Your task to perform on an android device: When is my next meeting? Image 0: 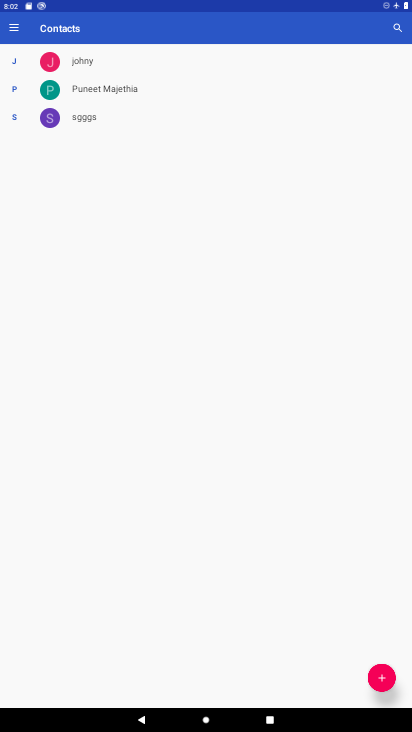
Step 0: press home button
Your task to perform on an android device: When is my next meeting? Image 1: 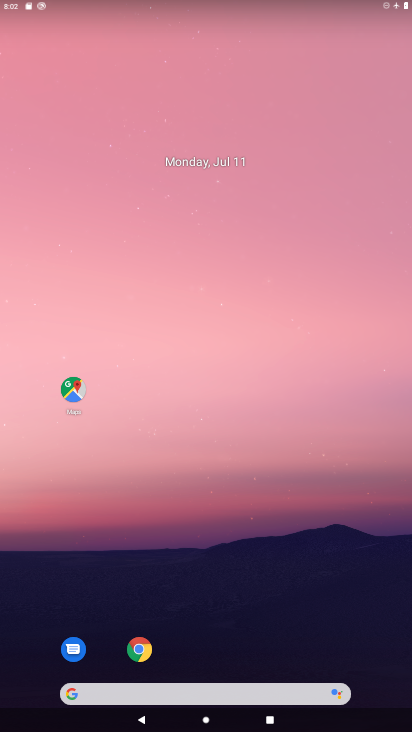
Step 1: drag from (193, 696) to (155, 148)
Your task to perform on an android device: When is my next meeting? Image 2: 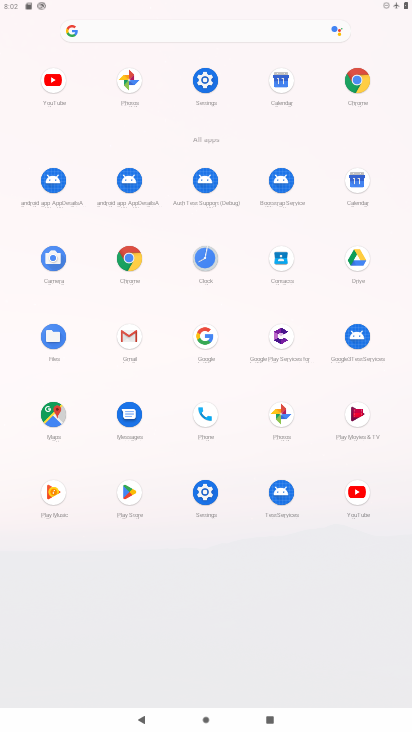
Step 2: click (357, 181)
Your task to perform on an android device: When is my next meeting? Image 3: 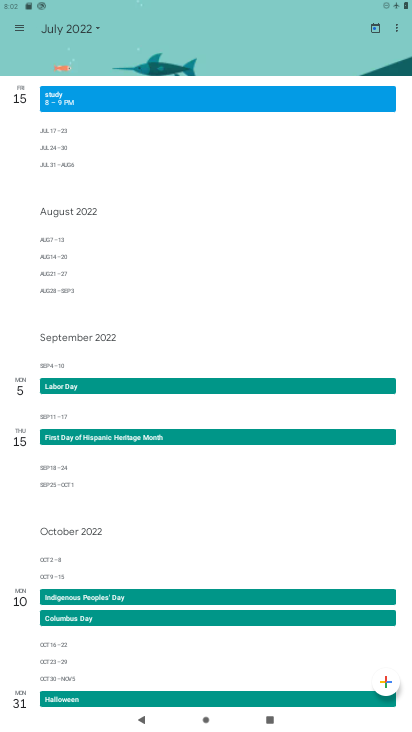
Step 3: click (378, 28)
Your task to perform on an android device: When is my next meeting? Image 4: 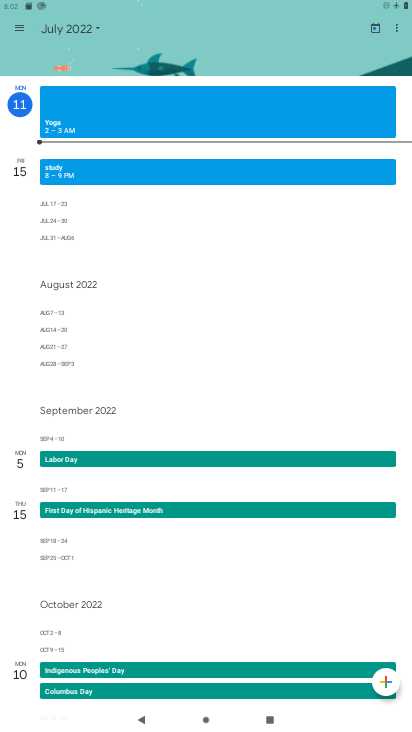
Step 4: click (89, 25)
Your task to perform on an android device: When is my next meeting? Image 5: 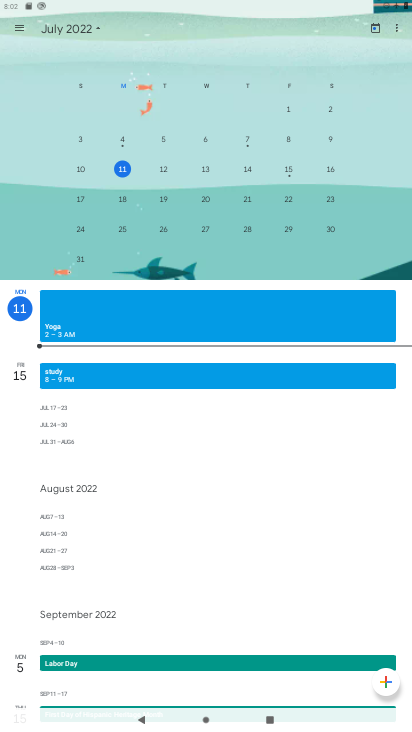
Step 5: click (292, 167)
Your task to perform on an android device: When is my next meeting? Image 6: 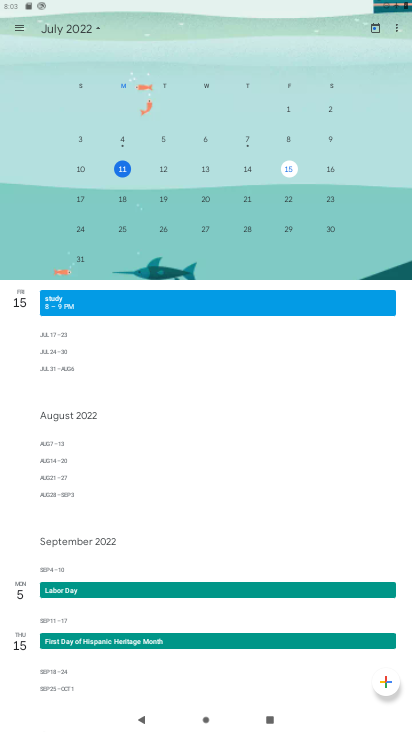
Step 6: click (25, 25)
Your task to perform on an android device: When is my next meeting? Image 7: 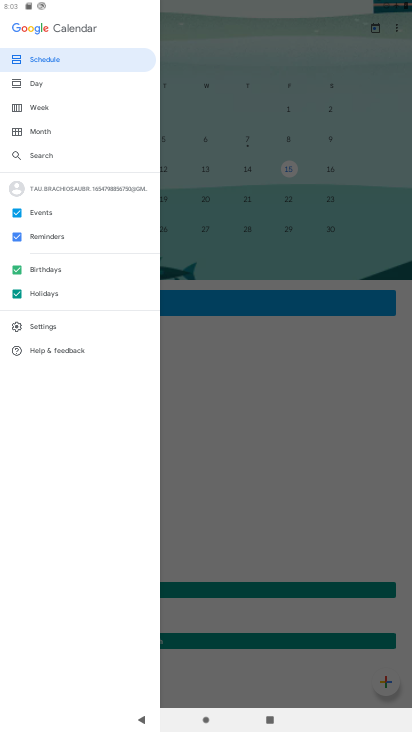
Step 7: click (35, 62)
Your task to perform on an android device: When is my next meeting? Image 8: 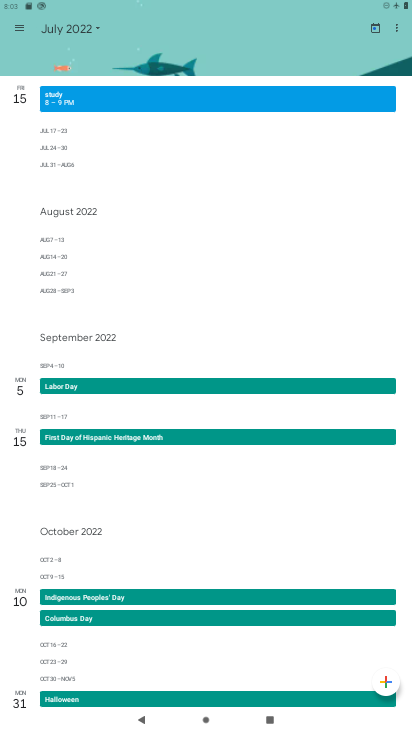
Step 8: task complete